Your task to perform on an android device: make emails show in primary in the gmail app Image 0: 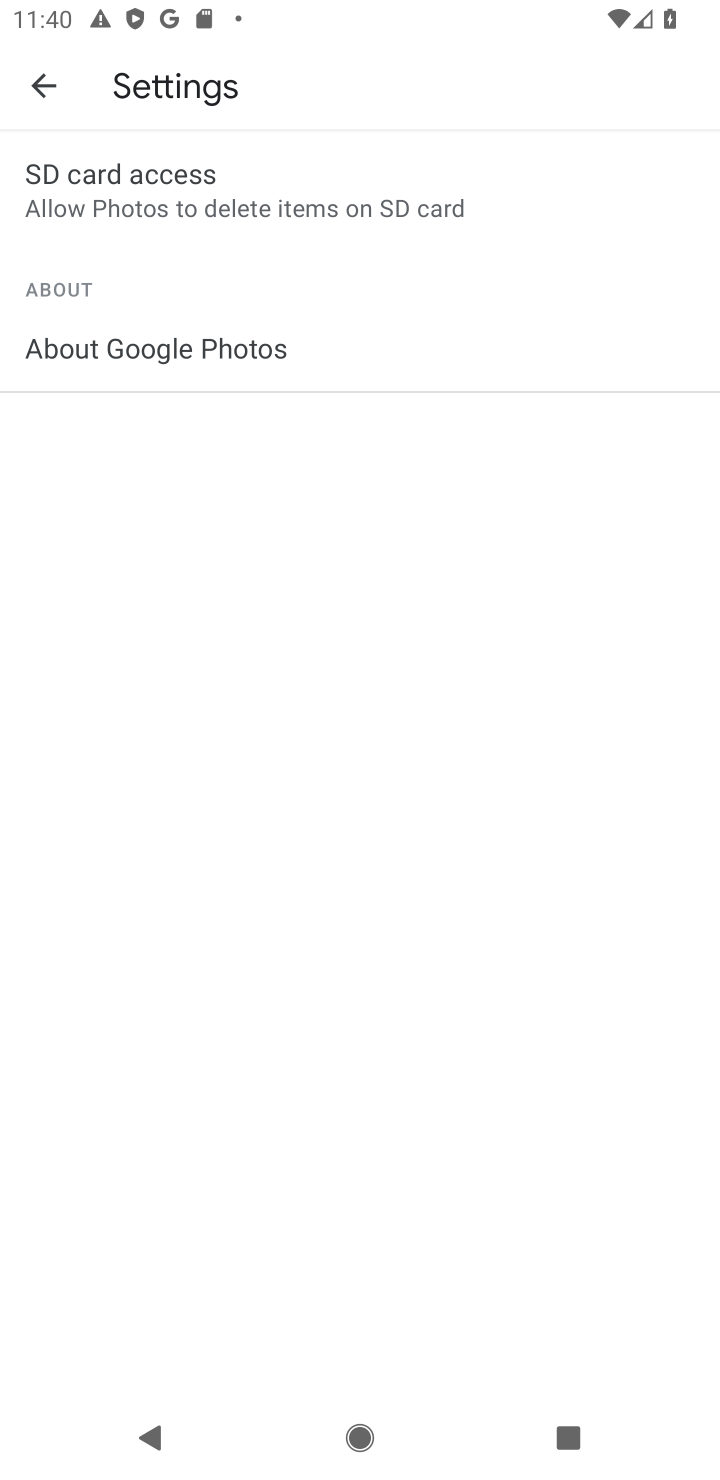
Step 0: press home button
Your task to perform on an android device: make emails show in primary in the gmail app Image 1: 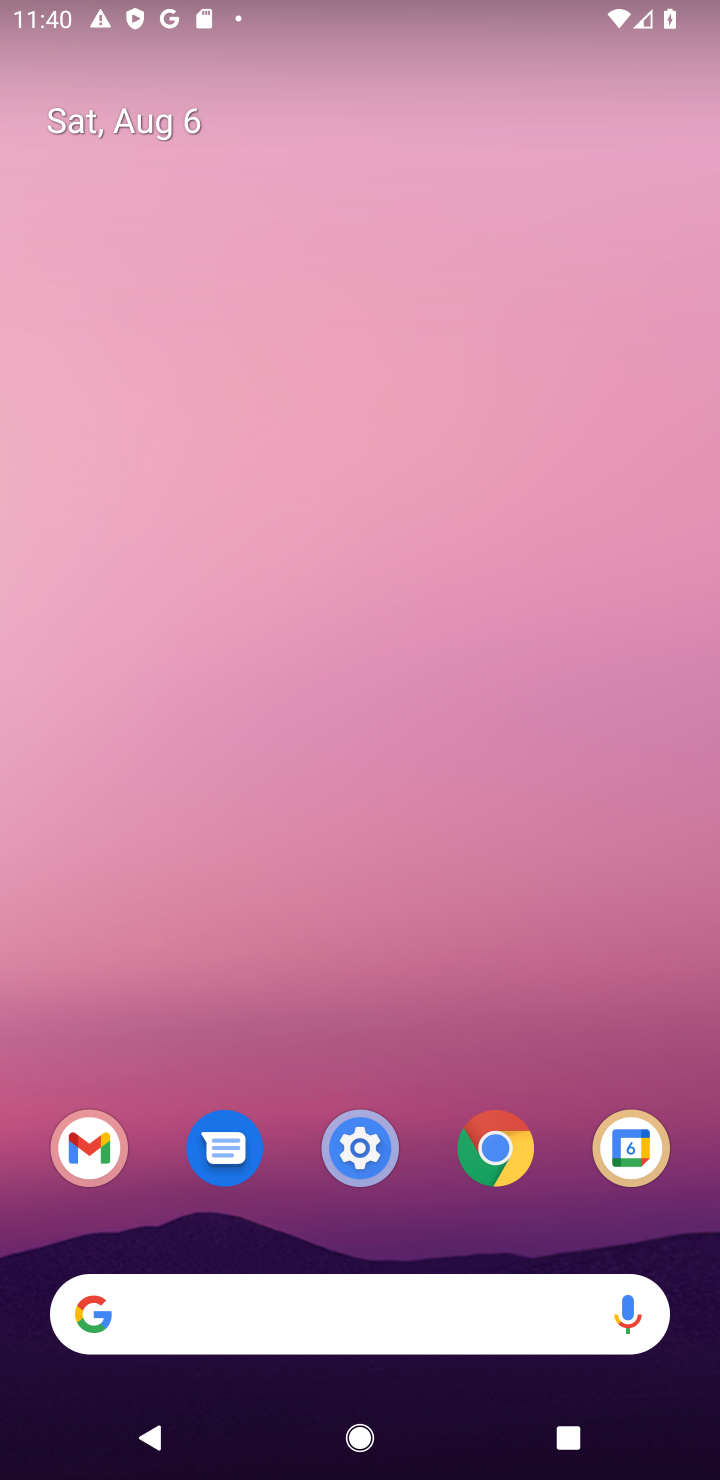
Step 1: drag from (275, 361) to (255, 8)
Your task to perform on an android device: make emails show in primary in the gmail app Image 2: 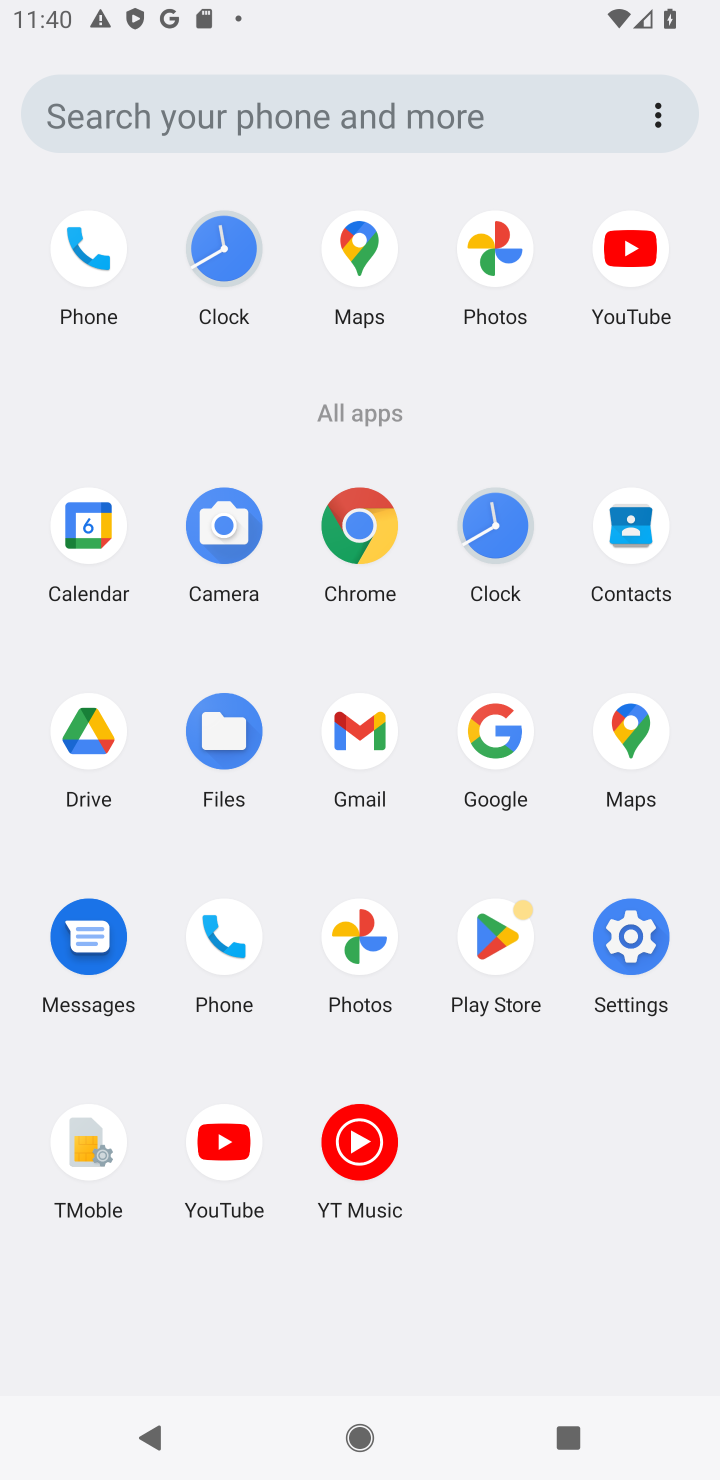
Step 2: click (359, 725)
Your task to perform on an android device: make emails show in primary in the gmail app Image 3: 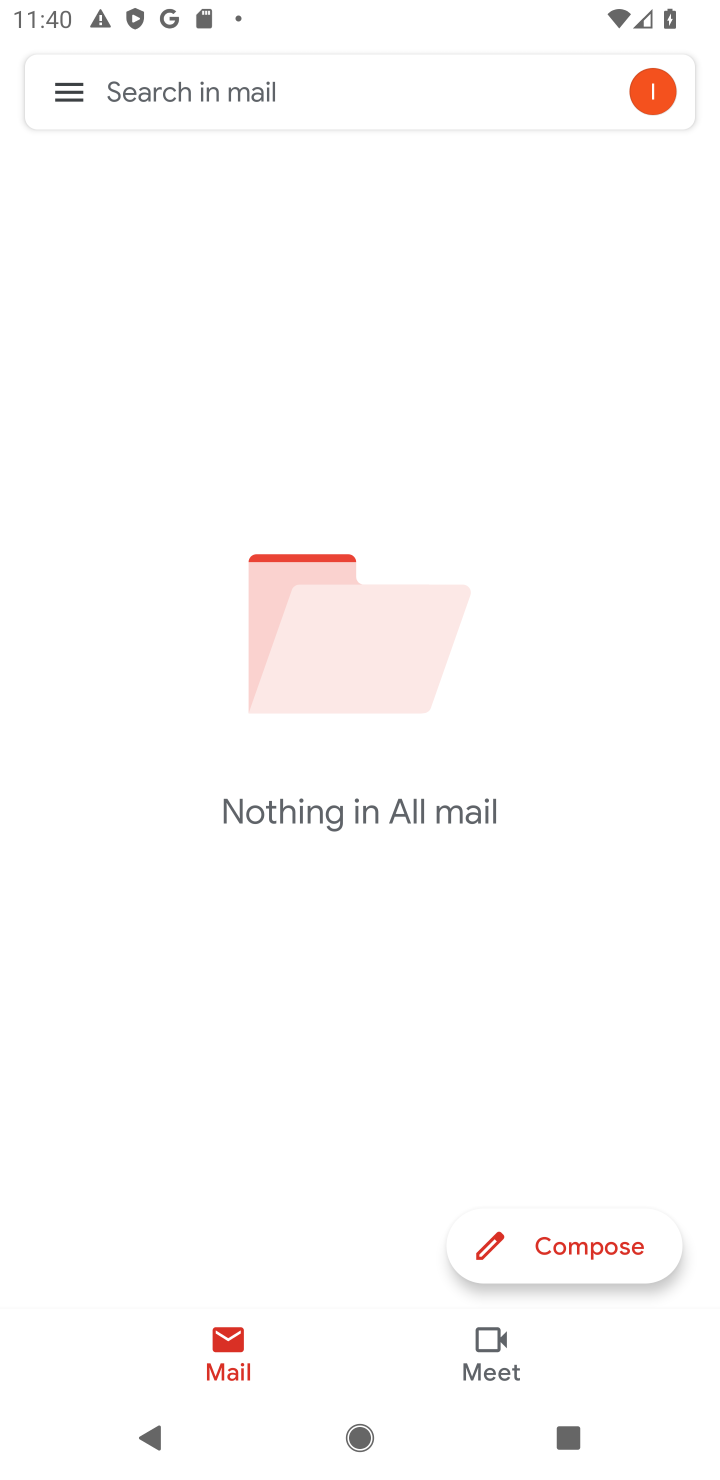
Step 3: click (69, 77)
Your task to perform on an android device: make emails show in primary in the gmail app Image 4: 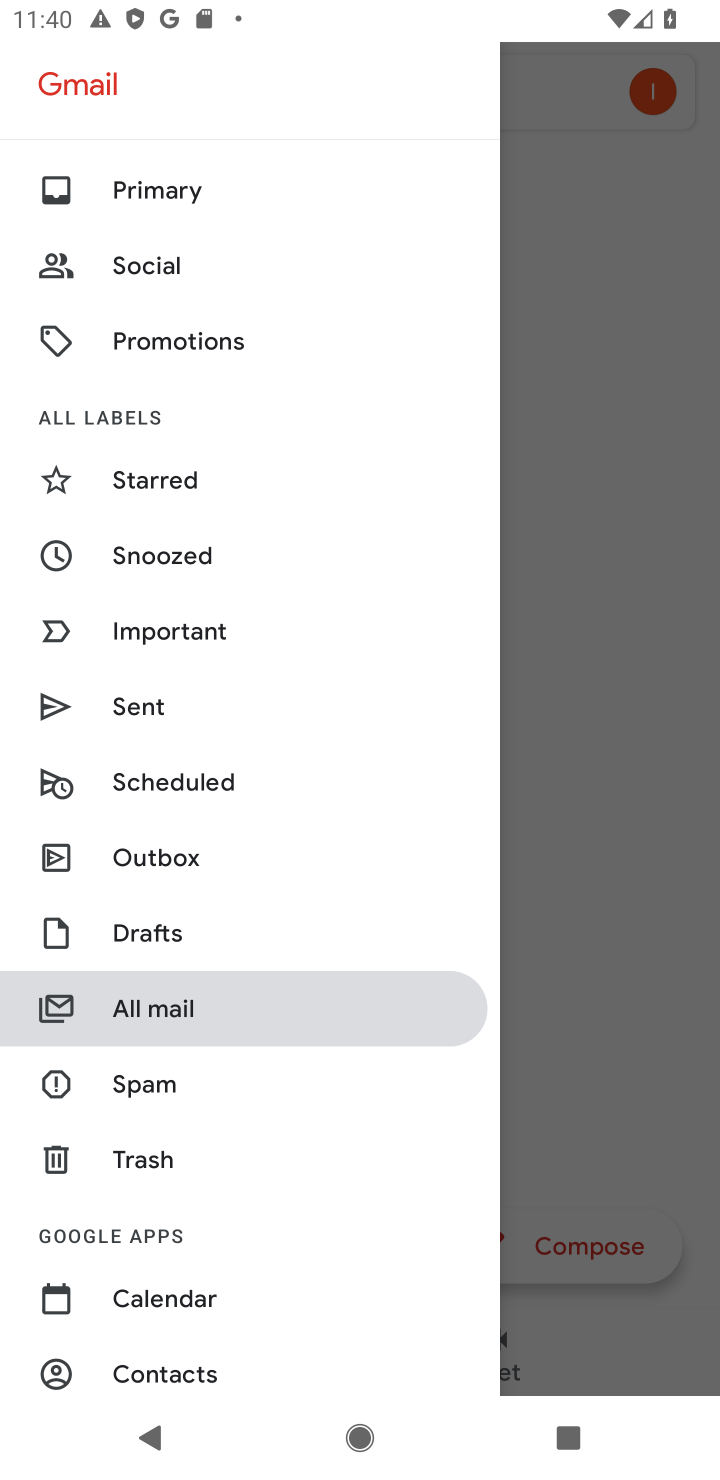
Step 4: click (174, 181)
Your task to perform on an android device: make emails show in primary in the gmail app Image 5: 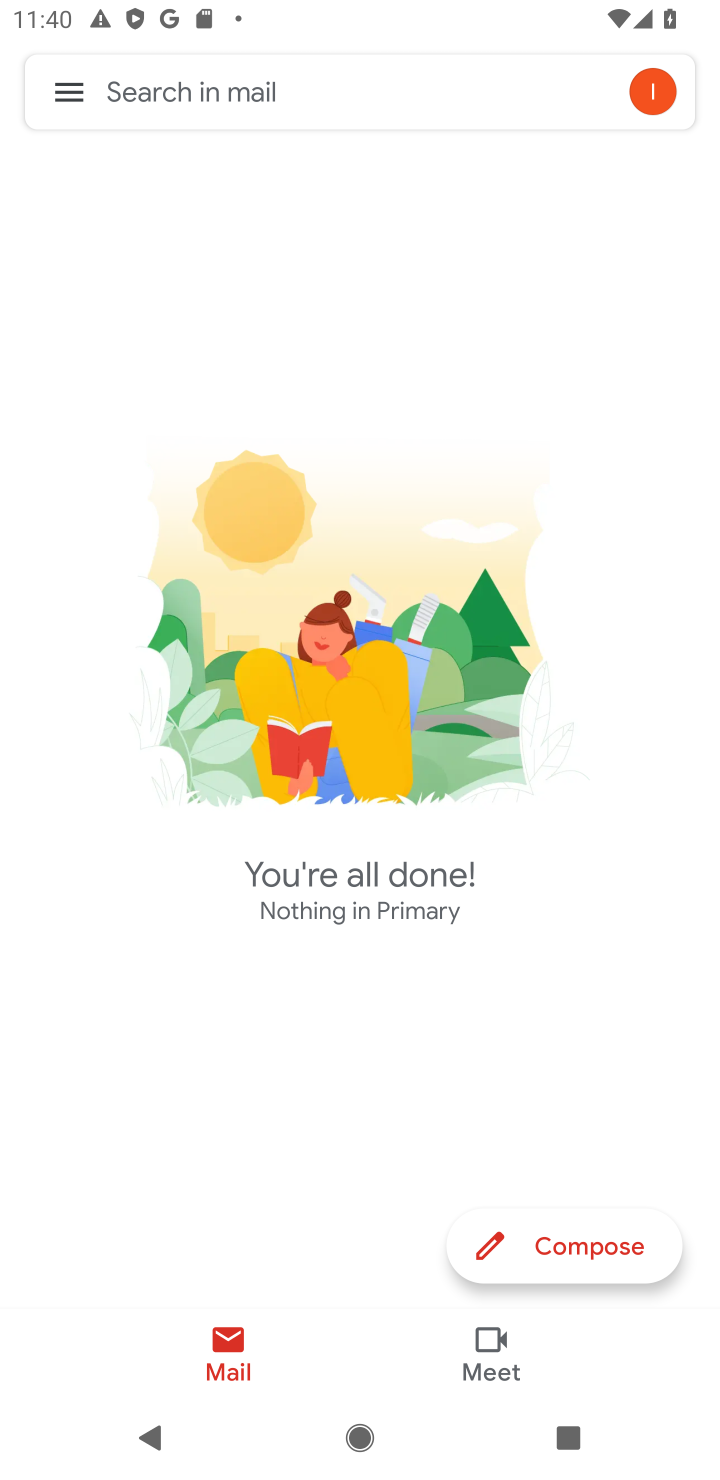
Step 5: task complete